Your task to perform on an android device: search for starred emails in the gmail app Image 0: 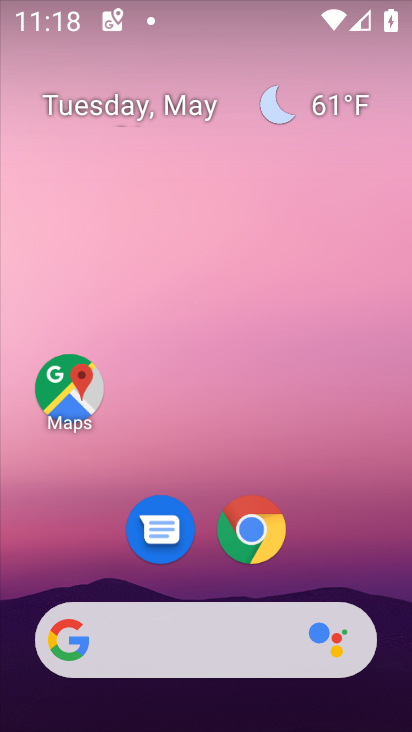
Step 0: drag from (325, 555) to (118, 99)
Your task to perform on an android device: search for starred emails in the gmail app Image 1: 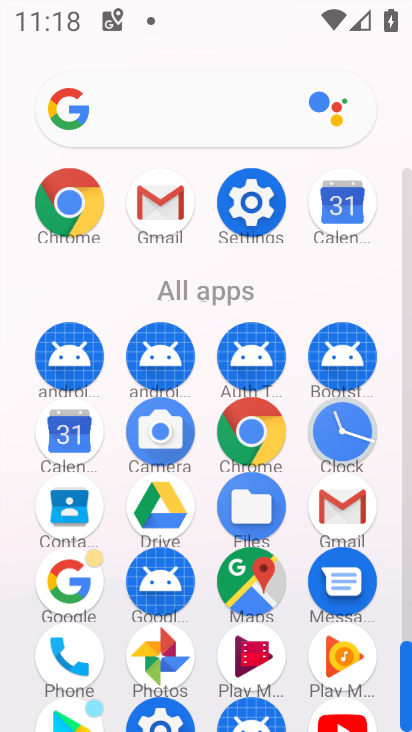
Step 1: click (170, 203)
Your task to perform on an android device: search for starred emails in the gmail app Image 2: 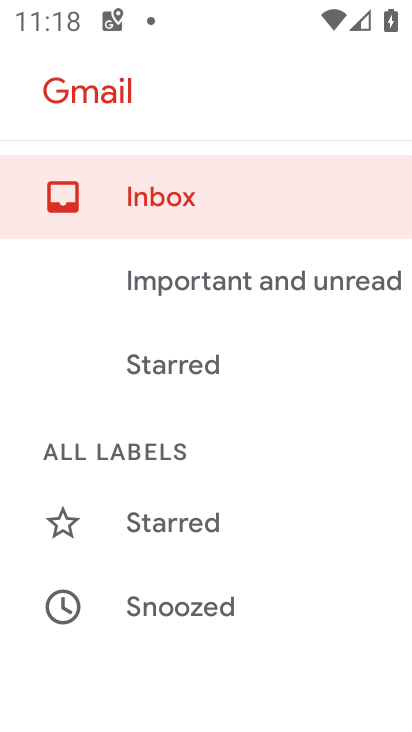
Step 2: click (145, 527)
Your task to perform on an android device: search for starred emails in the gmail app Image 3: 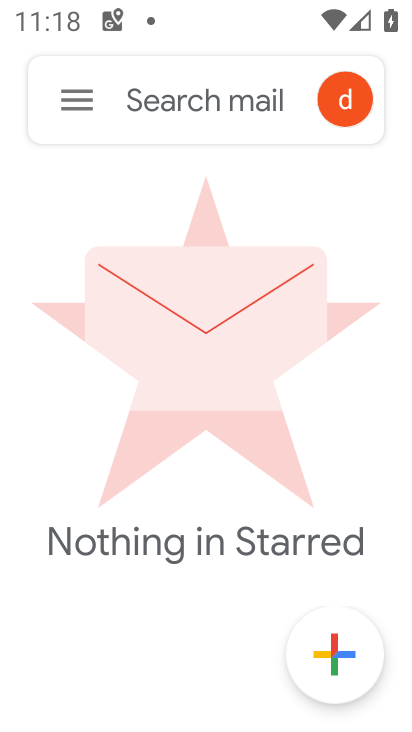
Step 3: task complete